Your task to perform on an android device: open app "Yahoo Mail" (install if not already installed) Image 0: 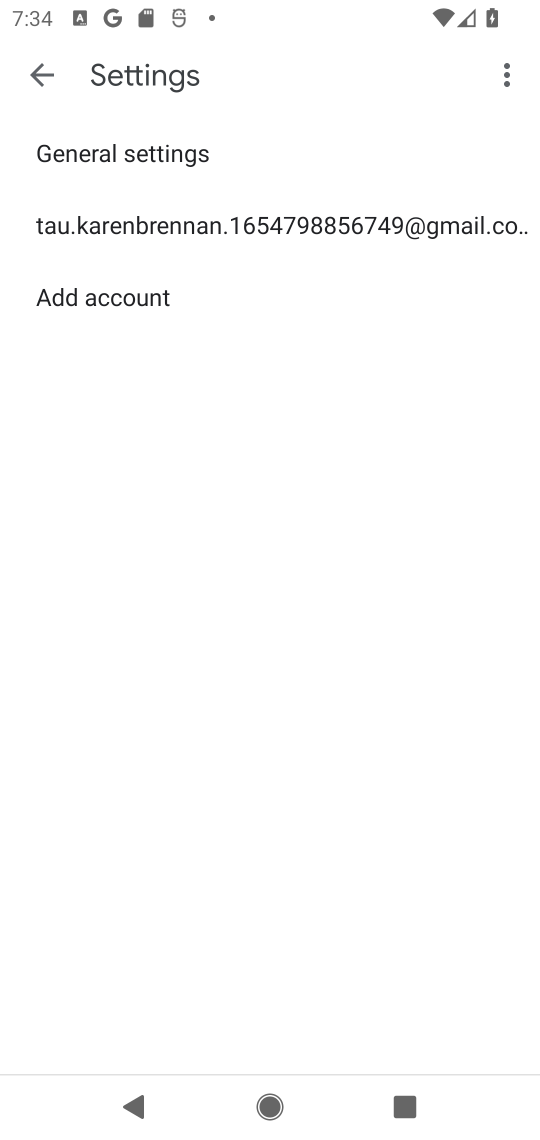
Step 0: press home button
Your task to perform on an android device: open app "Yahoo Mail" (install if not already installed) Image 1: 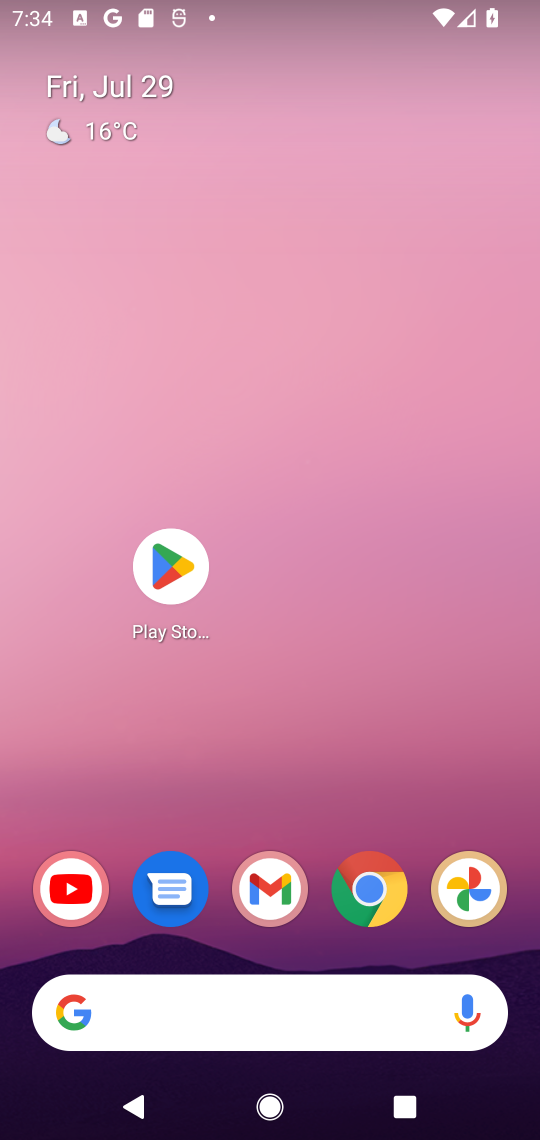
Step 1: click (173, 569)
Your task to perform on an android device: open app "Yahoo Mail" (install if not already installed) Image 2: 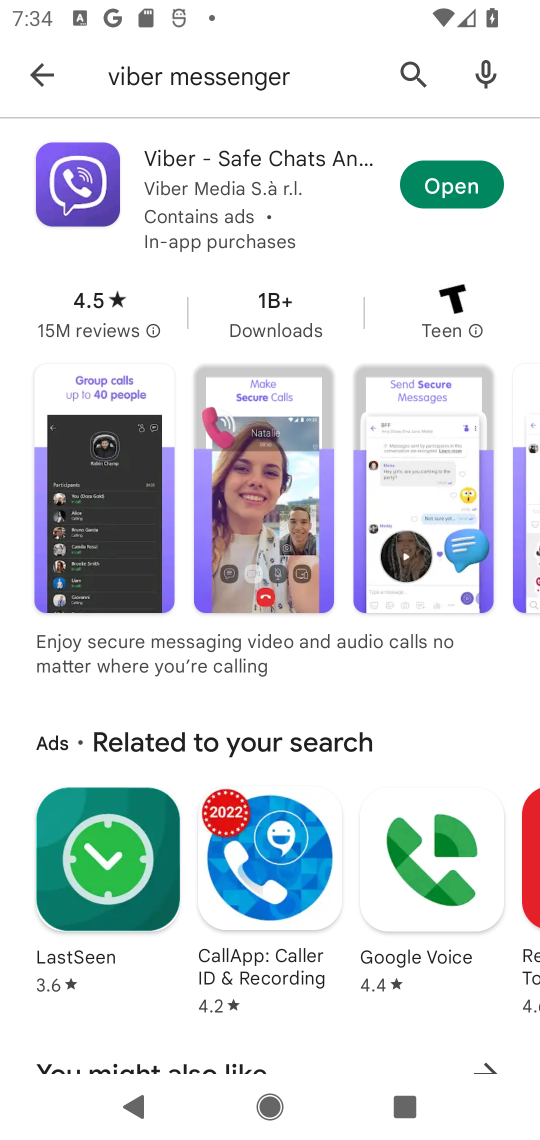
Step 2: click (409, 59)
Your task to perform on an android device: open app "Yahoo Mail" (install if not already installed) Image 3: 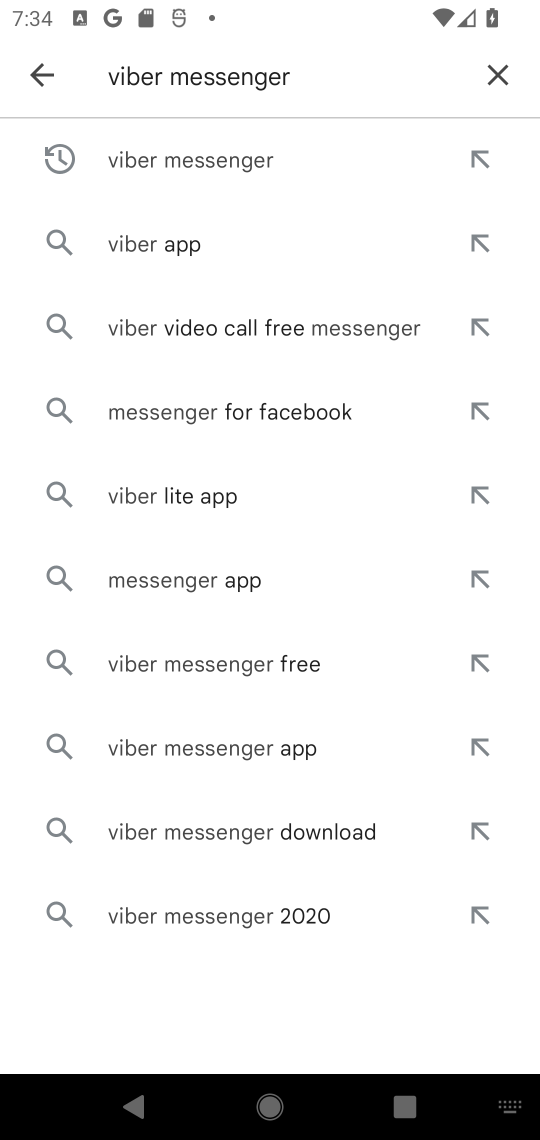
Step 3: click (506, 74)
Your task to perform on an android device: open app "Yahoo Mail" (install if not already installed) Image 4: 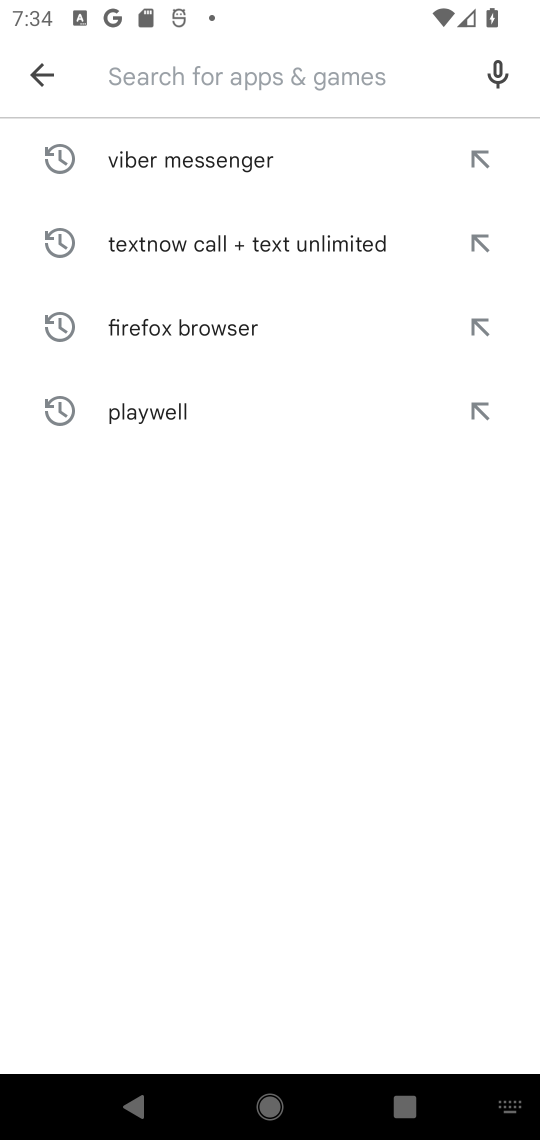
Step 4: type "Yahoo Mail"
Your task to perform on an android device: open app "Yahoo Mail" (install if not already installed) Image 5: 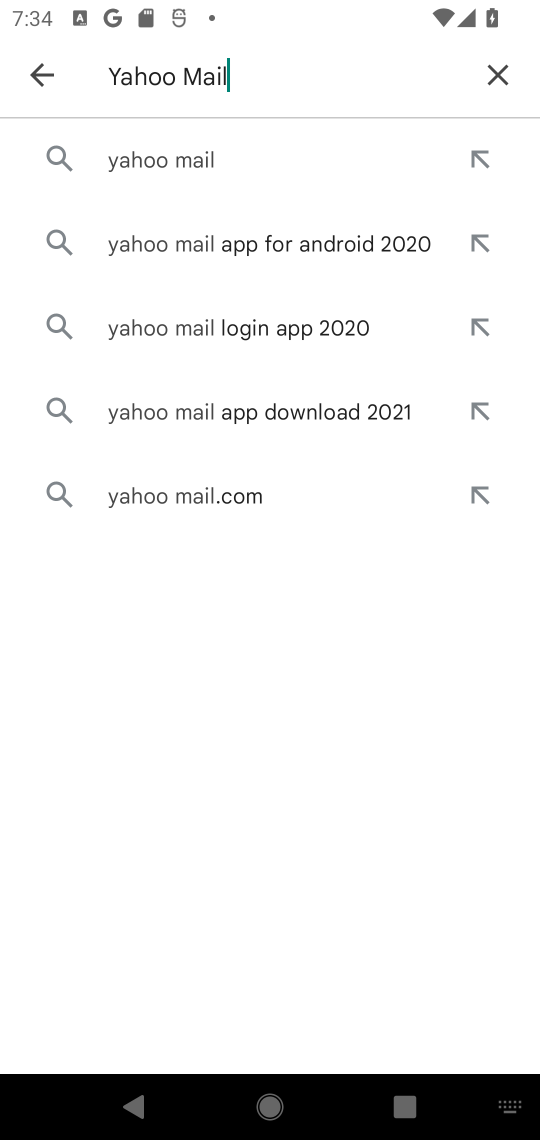
Step 5: click (144, 159)
Your task to perform on an android device: open app "Yahoo Mail" (install if not already installed) Image 6: 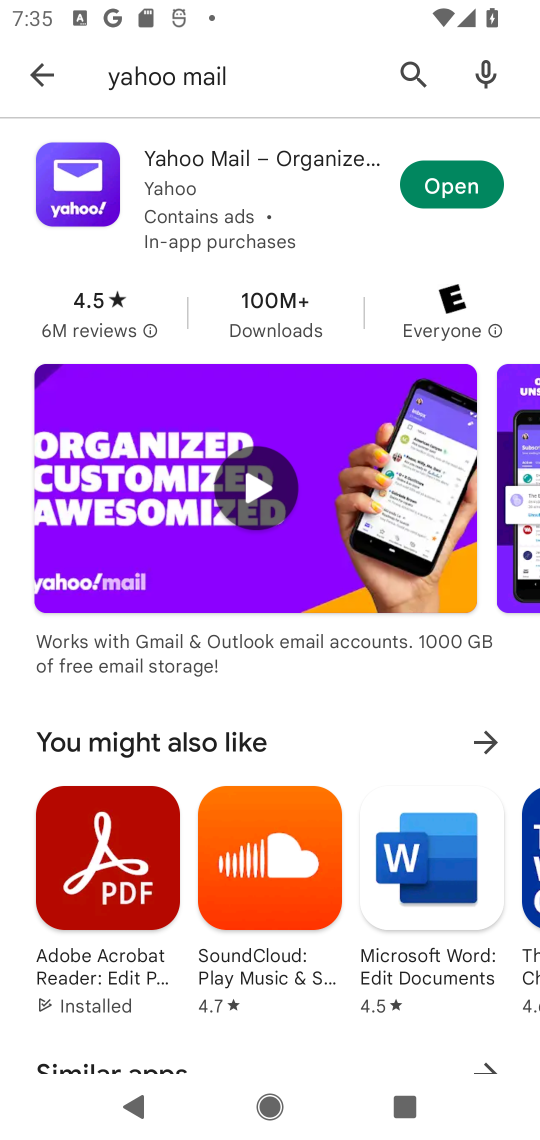
Step 6: click (445, 189)
Your task to perform on an android device: open app "Yahoo Mail" (install if not already installed) Image 7: 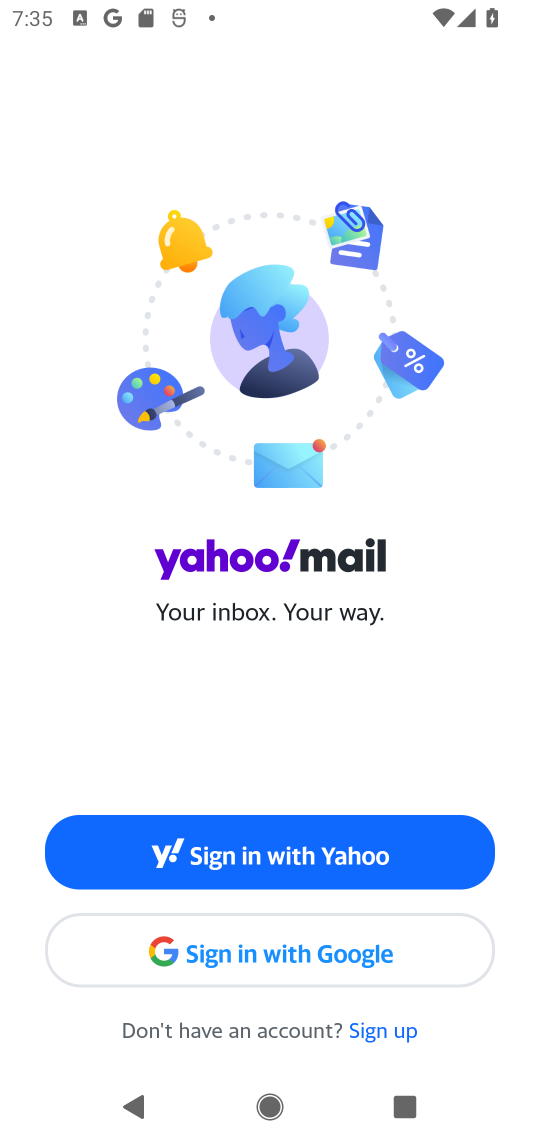
Step 7: task complete